Your task to perform on an android device: open app "VLC for Android" Image 0: 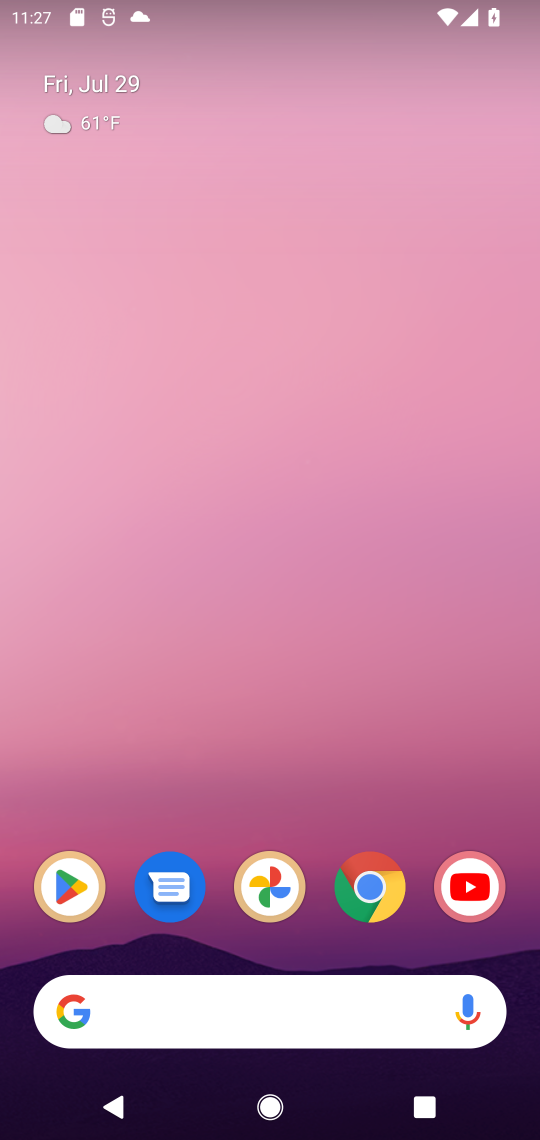
Step 0: drag from (260, 1003) to (216, 137)
Your task to perform on an android device: open app "VLC for Android" Image 1: 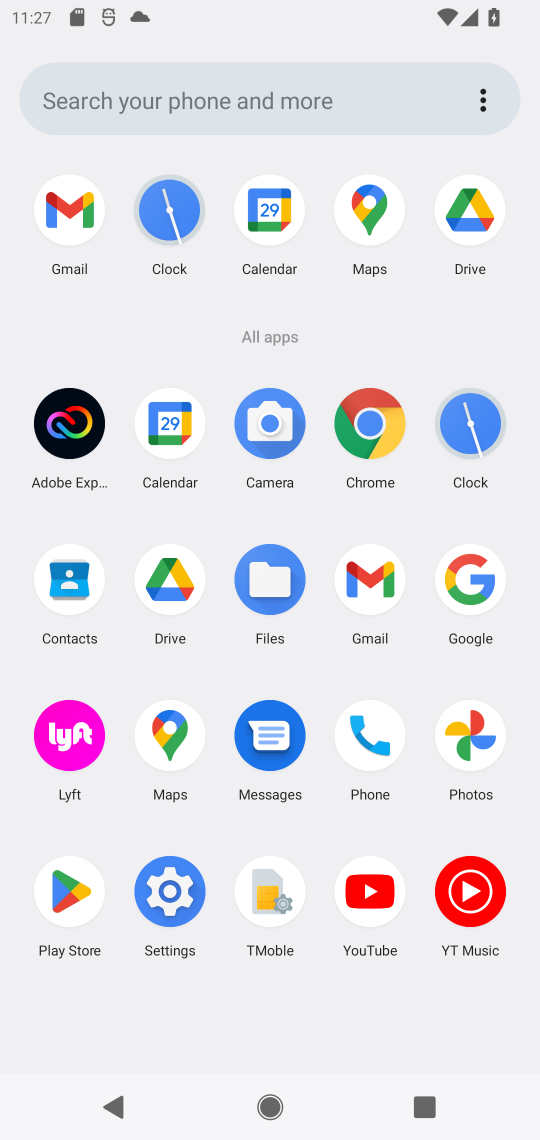
Step 1: click (68, 886)
Your task to perform on an android device: open app "VLC for Android" Image 2: 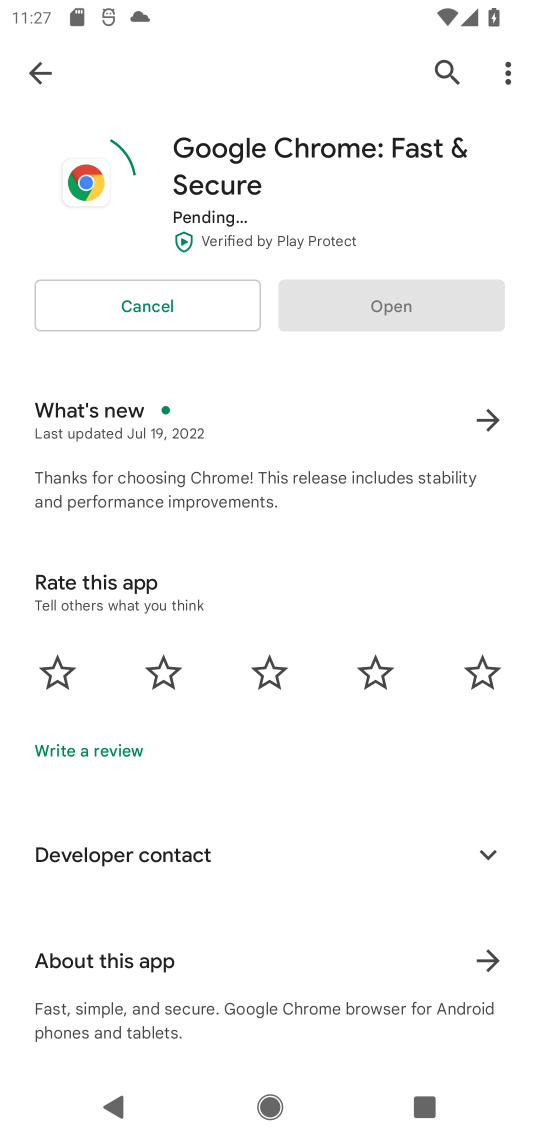
Step 2: click (452, 71)
Your task to perform on an android device: open app "VLC for Android" Image 3: 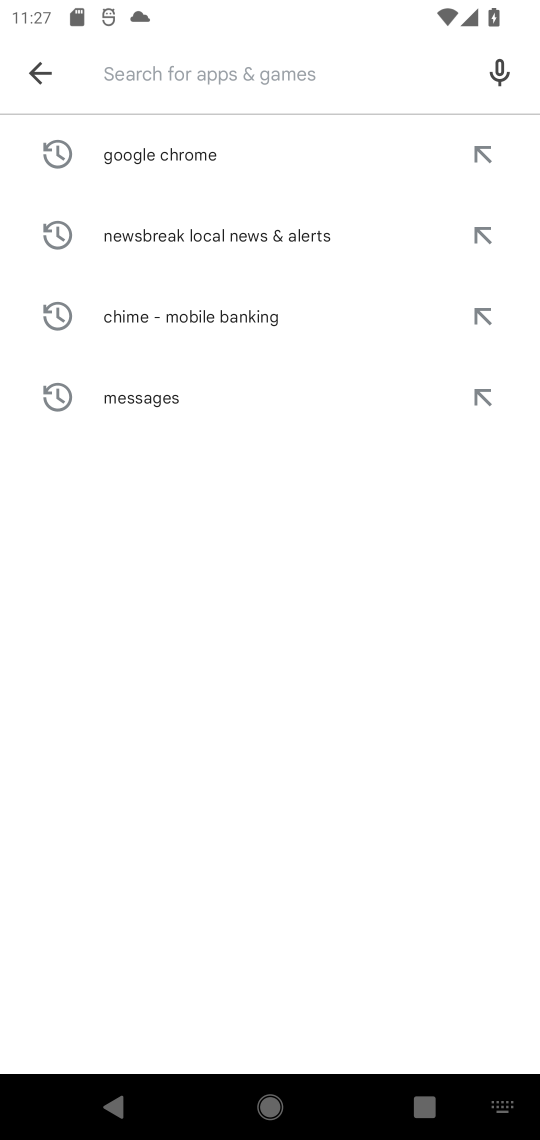
Step 3: click (220, 55)
Your task to perform on an android device: open app "VLC for Android" Image 4: 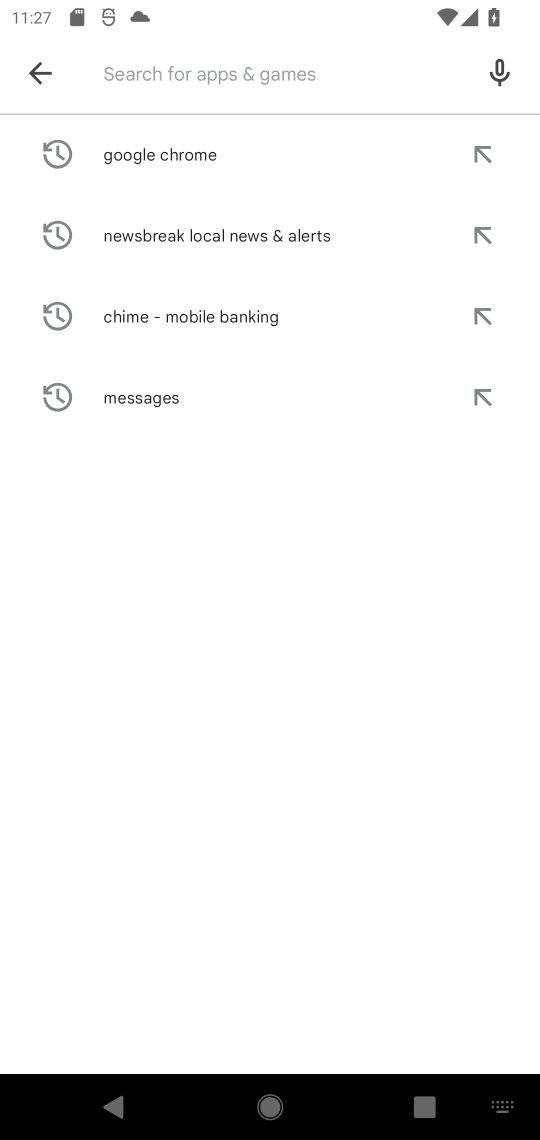
Step 4: type "VLC for Android"
Your task to perform on an android device: open app "VLC for Android" Image 5: 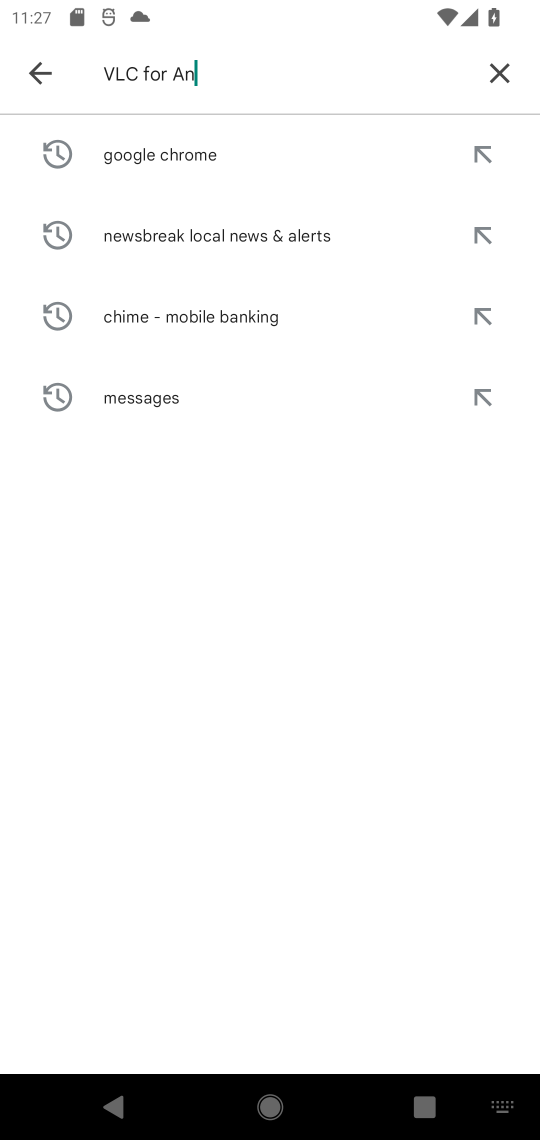
Step 5: type ""
Your task to perform on an android device: open app "VLC for Android" Image 6: 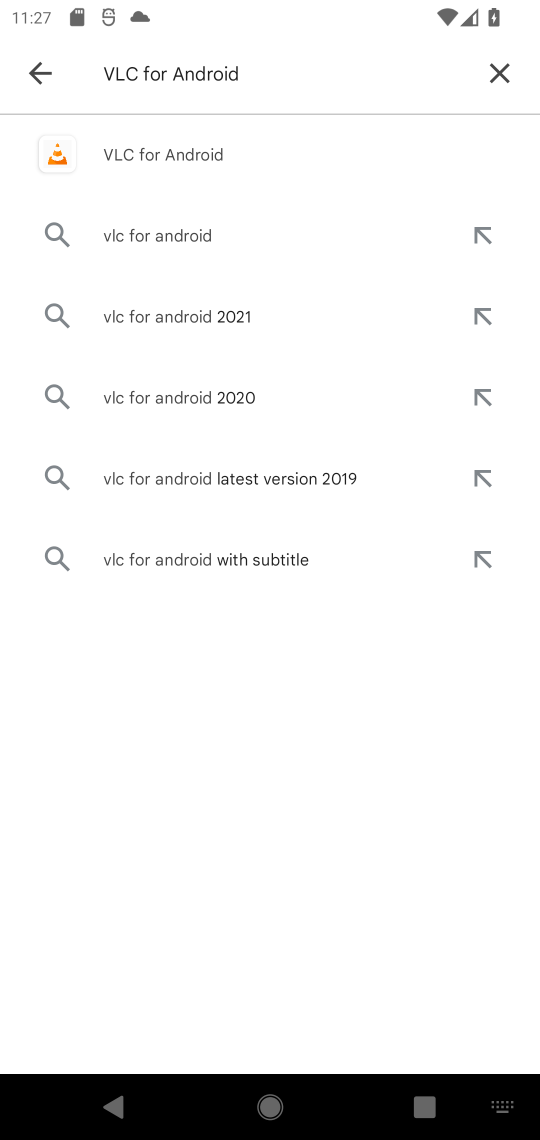
Step 6: click (188, 147)
Your task to perform on an android device: open app "VLC for Android" Image 7: 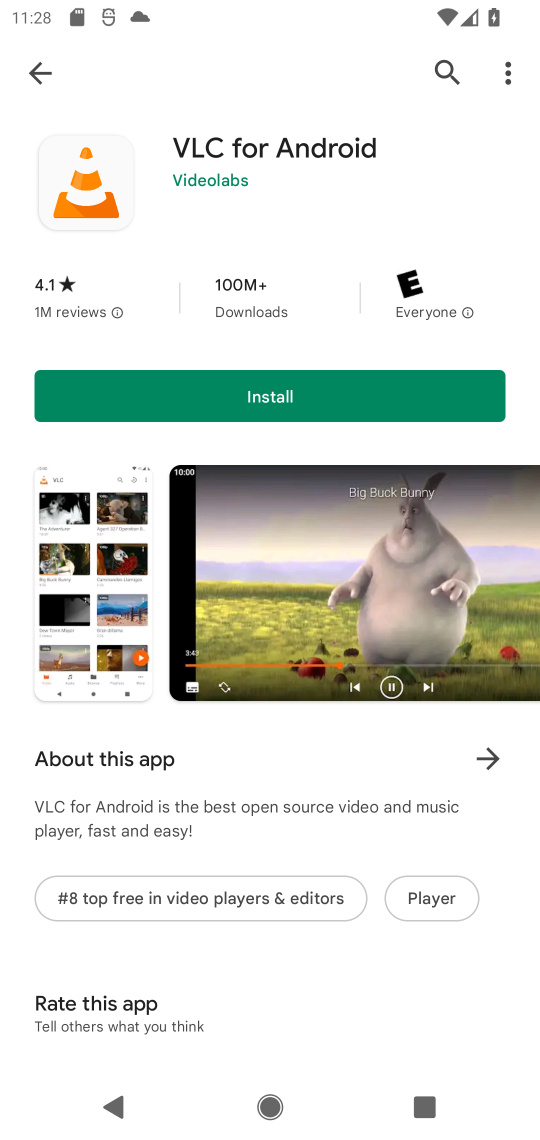
Step 7: task complete